Your task to perform on an android device: turn off location history Image 0: 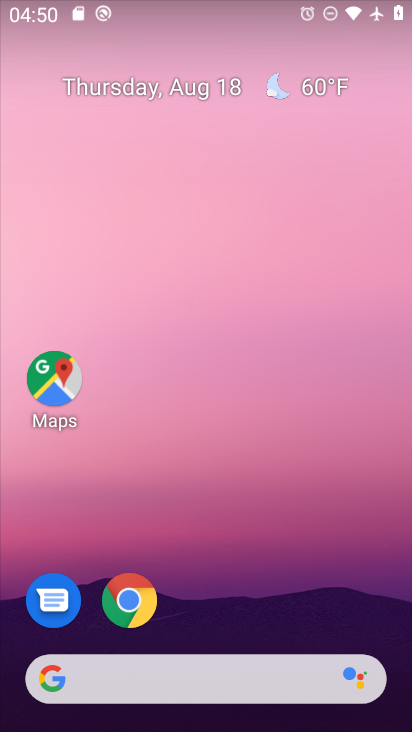
Step 0: press home button
Your task to perform on an android device: turn off location history Image 1: 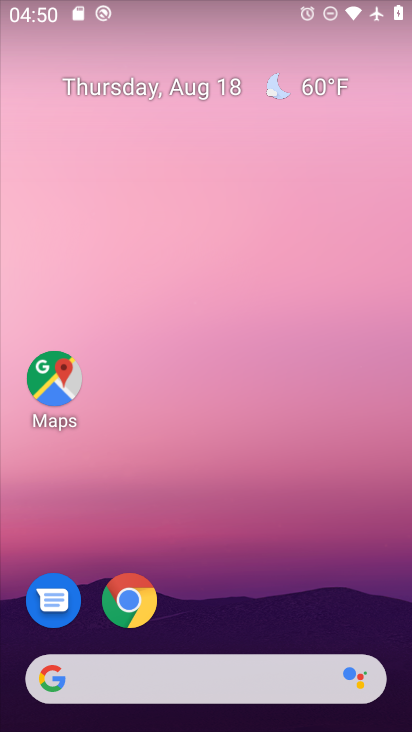
Step 1: drag from (233, 630) to (182, 174)
Your task to perform on an android device: turn off location history Image 2: 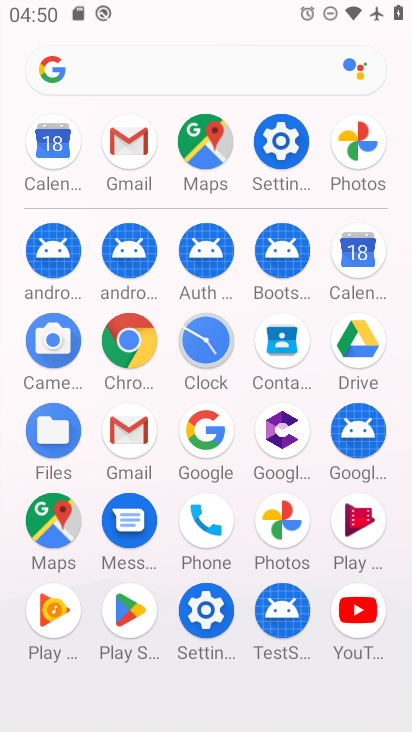
Step 2: click (274, 149)
Your task to perform on an android device: turn off location history Image 3: 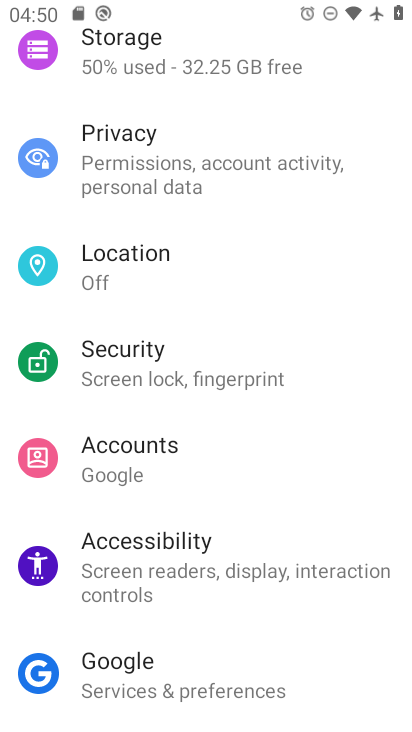
Step 3: click (126, 265)
Your task to perform on an android device: turn off location history Image 4: 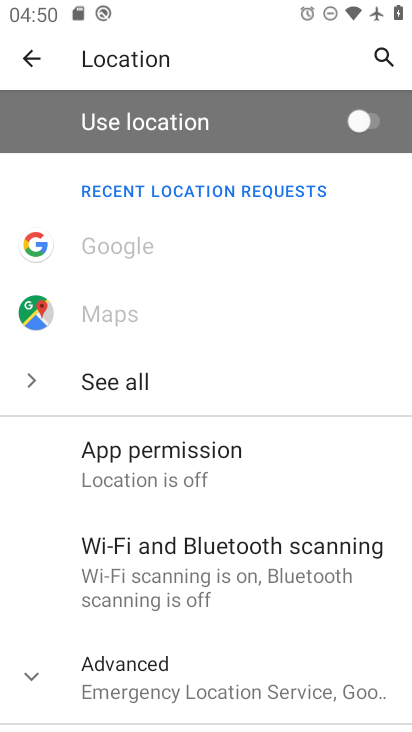
Step 4: click (150, 691)
Your task to perform on an android device: turn off location history Image 5: 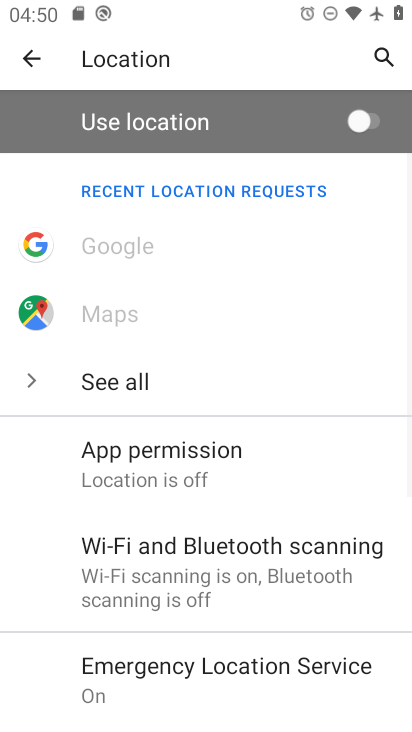
Step 5: drag from (243, 692) to (258, 82)
Your task to perform on an android device: turn off location history Image 6: 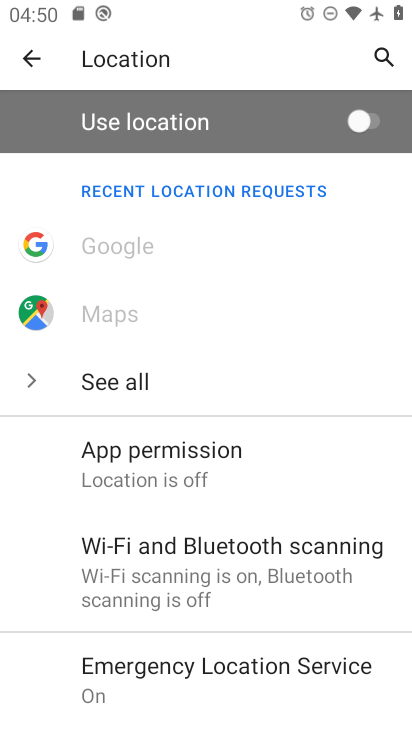
Step 6: drag from (39, 659) to (120, 78)
Your task to perform on an android device: turn off location history Image 7: 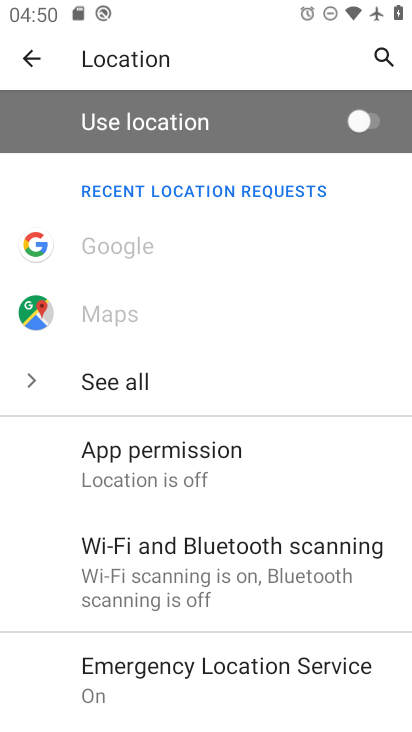
Step 7: drag from (289, 695) to (301, 1)
Your task to perform on an android device: turn off location history Image 8: 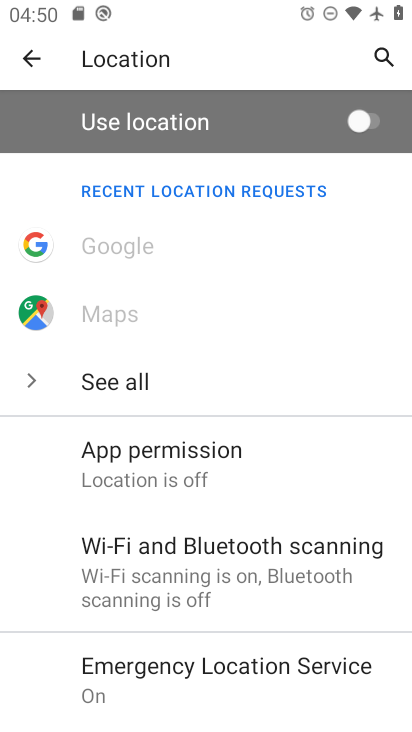
Step 8: drag from (205, 643) to (251, 76)
Your task to perform on an android device: turn off location history Image 9: 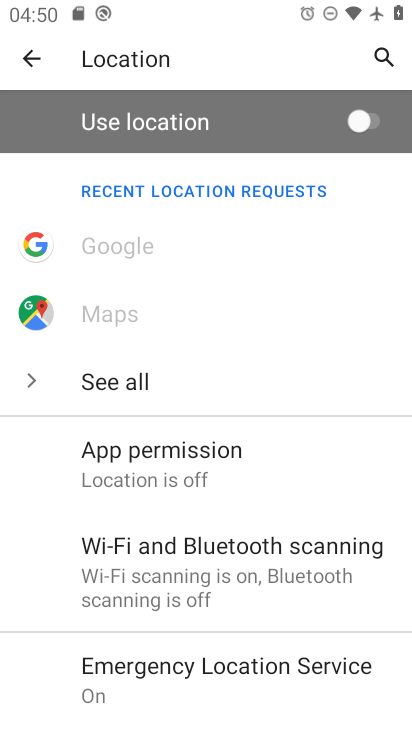
Step 9: drag from (243, 689) to (304, 112)
Your task to perform on an android device: turn off location history Image 10: 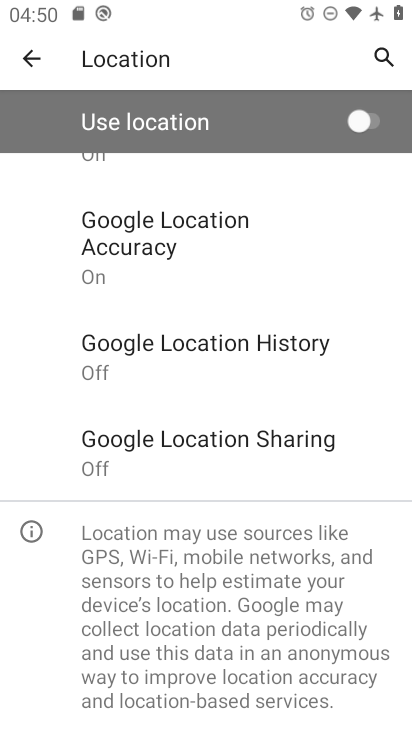
Step 10: click (190, 363)
Your task to perform on an android device: turn off location history Image 11: 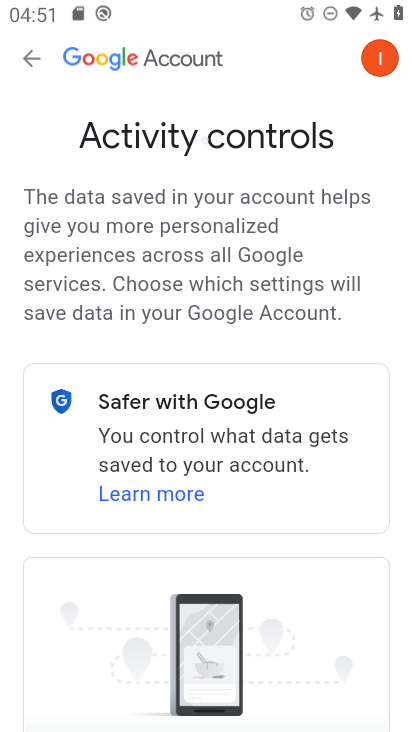
Step 11: task complete